Your task to perform on an android device: Go to accessibility settings Image 0: 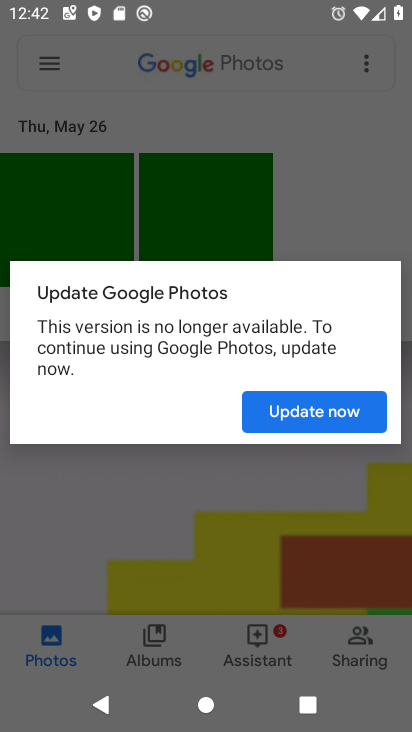
Step 0: press home button
Your task to perform on an android device: Go to accessibility settings Image 1: 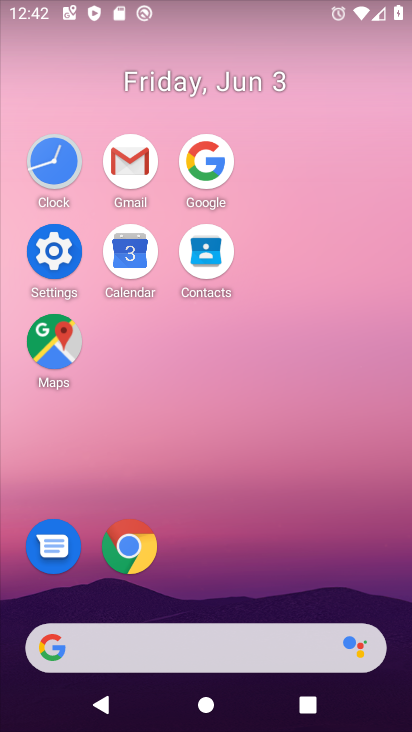
Step 1: click (63, 257)
Your task to perform on an android device: Go to accessibility settings Image 2: 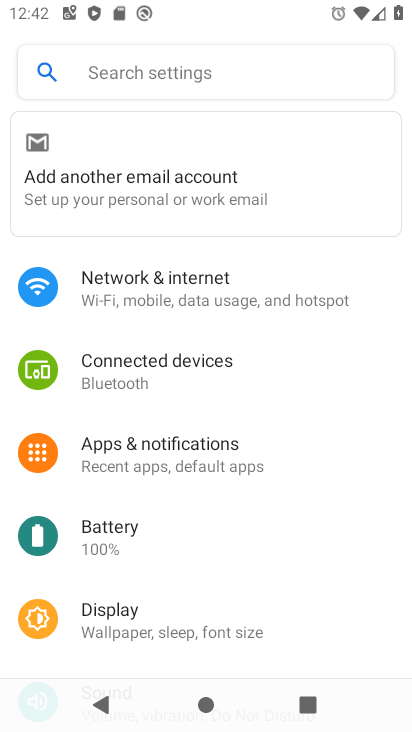
Step 2: drag from (222, 578) to (276, 138)
Your task to perform on an android device: Go to accessibility settings Image 3: 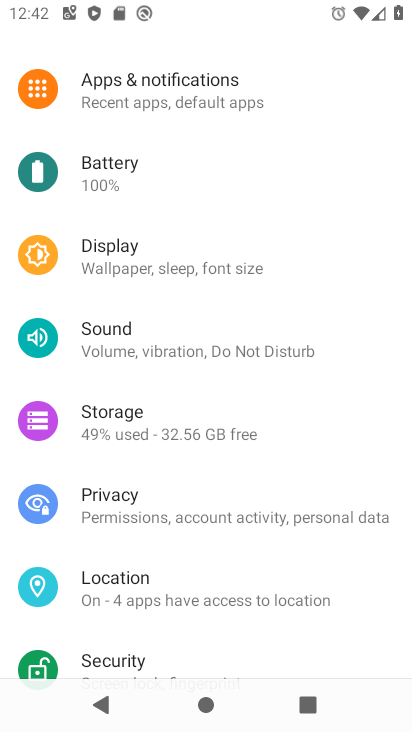
Step 3: drag from (221, 548) to (298, 87)
Your task to perform on an android device: Go to accessibility settings Image 4: 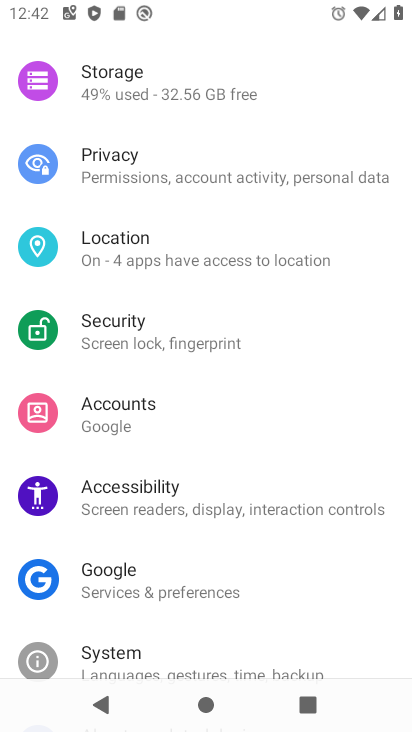
Step 4: drag from (241, 575) to (305, 175)
Your task to perform on an android device: Go to accessibility settings Image 5: 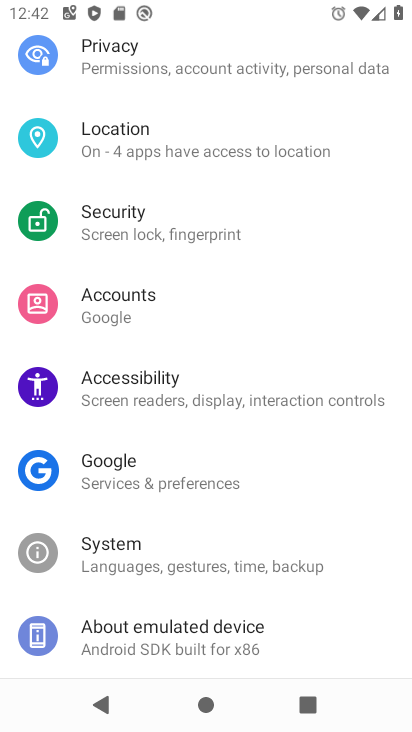
Step 5: click (249, 407)
Your task to perform on an android device: Go to accessibility settings Image 6: 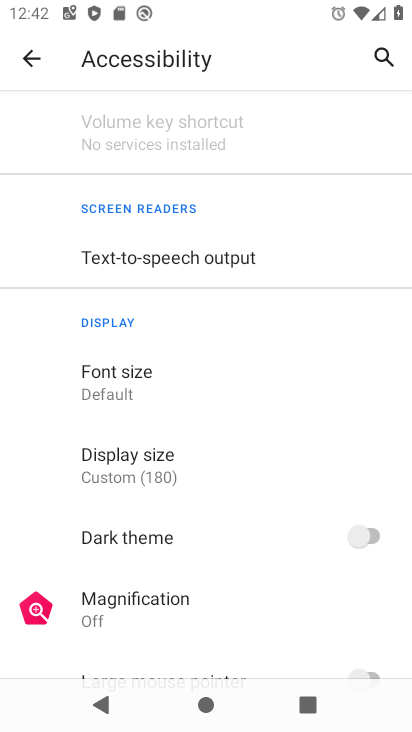
Step 6: task complete